Your task to perform on an android device: What's the weather today? Image 0: 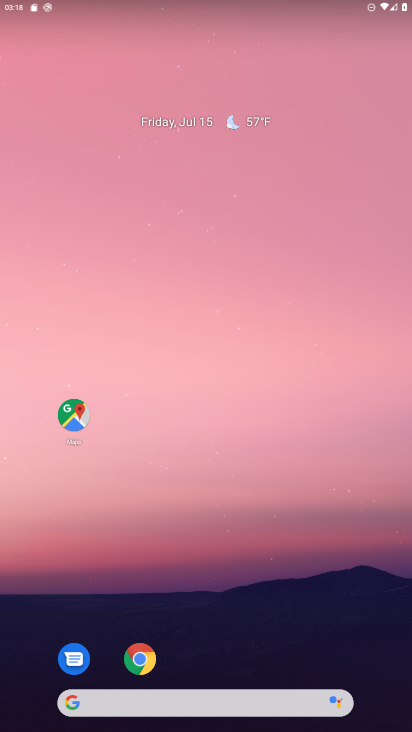
Step 0: click (255, 122)
Your task to perform on an android device: What's the weather today? Image 1: 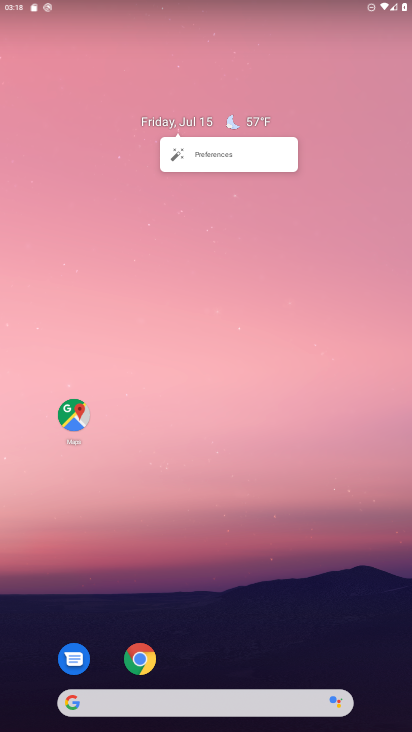
Step 1: click (255, 122)
Your task to perform on an android device: What's the weather today? Image 2: 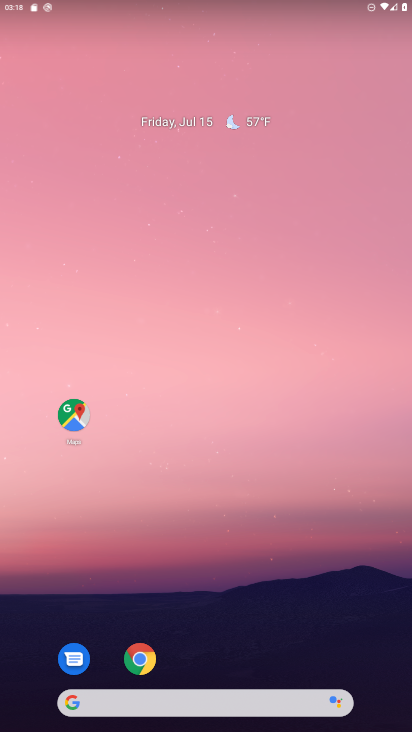
Step 2: click (245, 123)
Your task to perform on an android device: What's the weather today? Image 3: 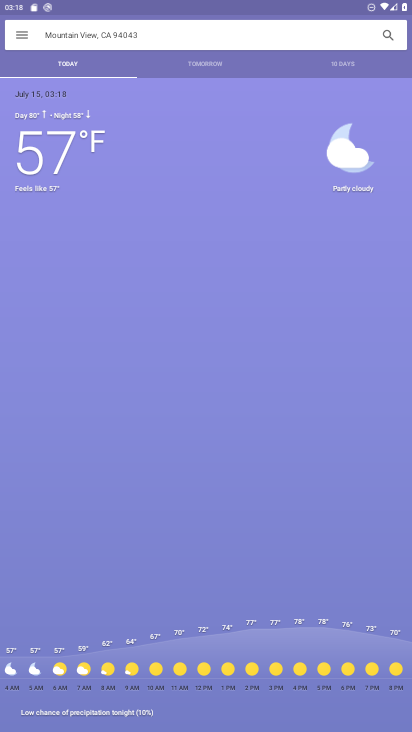
Step 3: task complete